Your task to perform on an android device: Go to display settings Image 0: 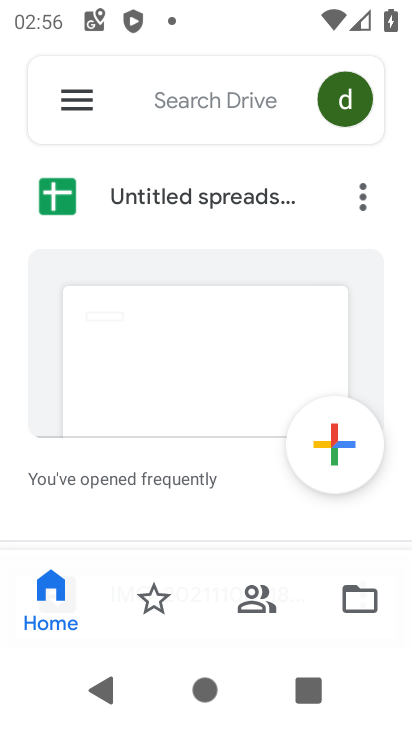
Step 0: press home button
Your task to perform on an android device: Go to display settings Image 1: 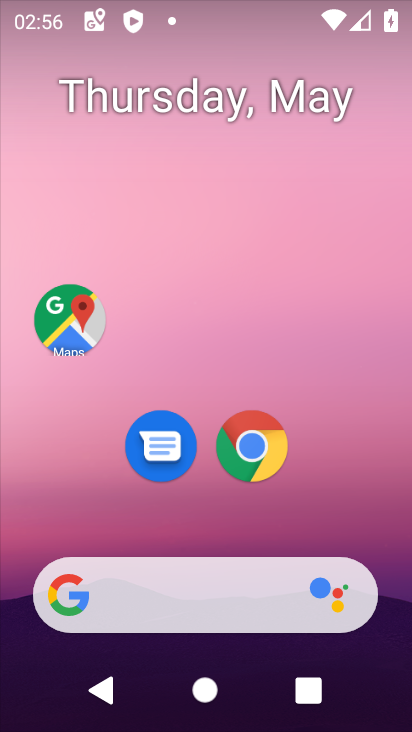
Step 1: drag from (333, 523) to (232, 33)
Your task to perform on an android device: Go to display settings Image 2: 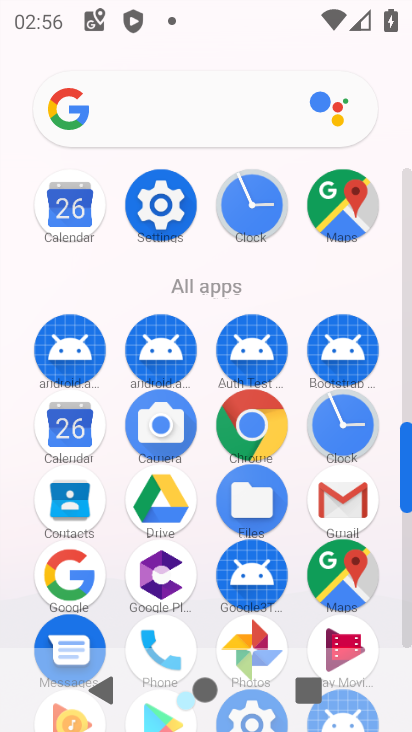
Step 2: click (165, 211)
Your task to perform on an android device: Go to display settings Image 3: 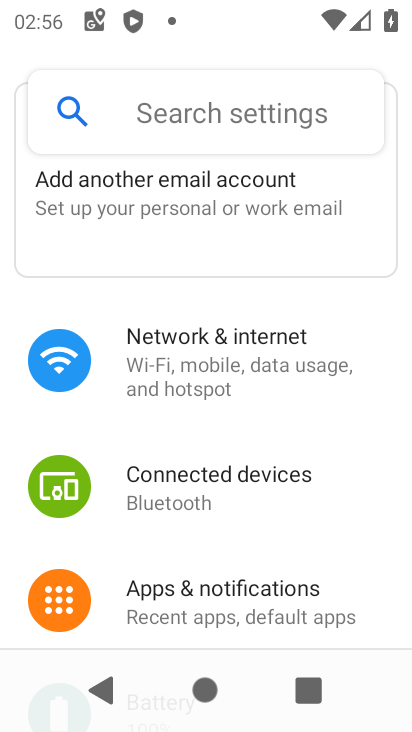
Step 3: drag from (222, 490) to (207, 139)
Your task to perform on an android device: Go to display settings Image 4: 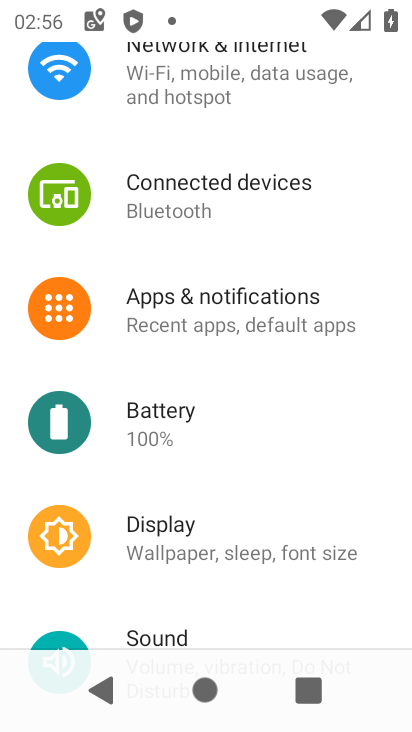
Step 4: click (156, 542)
Your task to perform on an android device: Go to display settings Image 5: 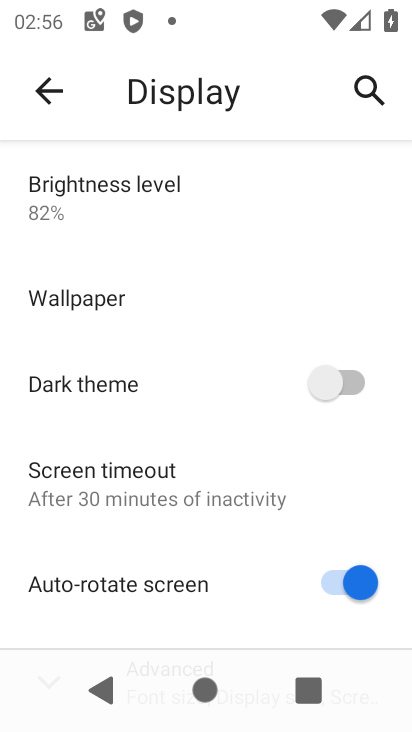
Step 5: task complete